Your task to perform on an android device: clear all cookies in the chrome app Image 0: 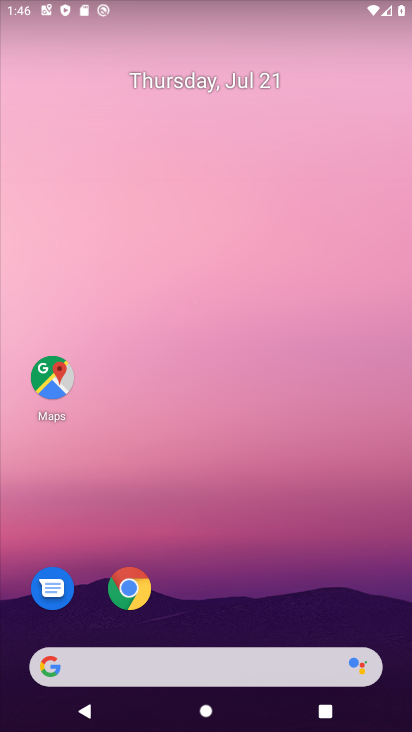
Step 0: click (147, 592)
Your task to perform on an android device: clear all cookies in the chrome app Image 1: 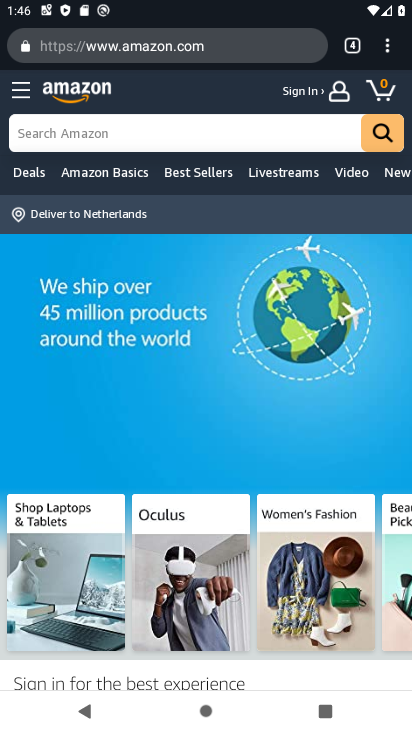
Step 1: drag from (383, 46) to (249, 545)
Your task to perform on an android device: clear all cookies in the chrome app Image 2: 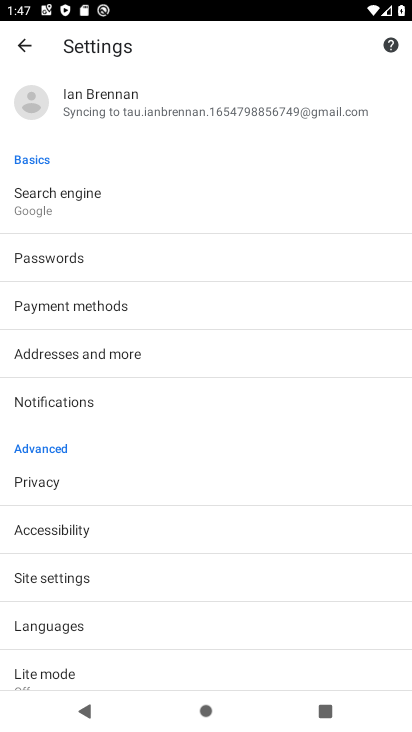
Step 2: click (33, 572)
Your task to perform on an android device: clear all cookies in the chrome app Image 3: 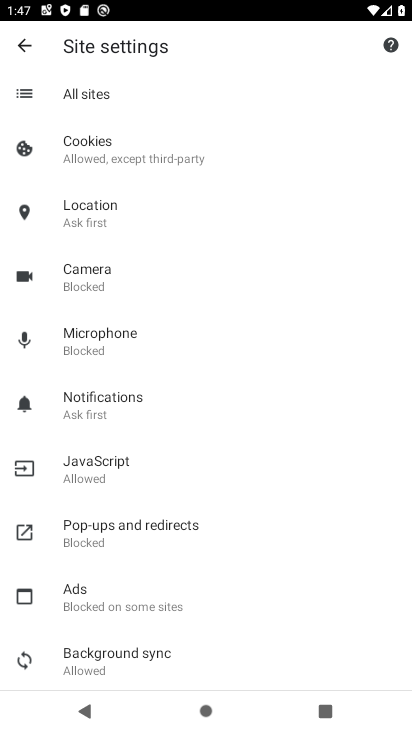
Step 3: click (81, 159)
Your task to perform on an android device: clear all cookies in the chrome app Image 4: 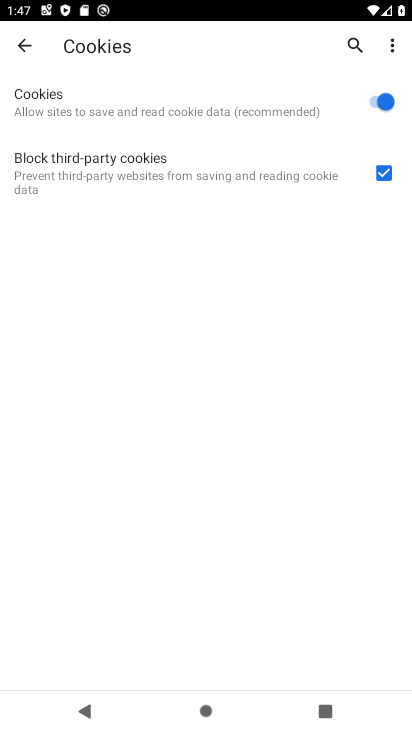
Step 4: task complete